Your task to perform on an android device: stop showing notifications on the lock screen Image 0: 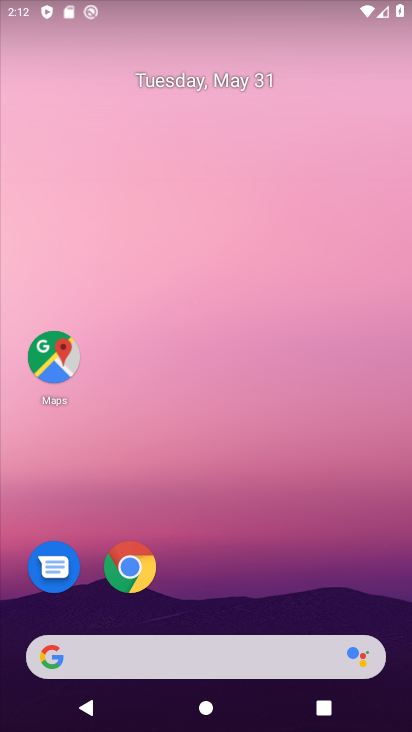
Step 0: drag from (214, 609) to (192, 154)
Your task to perform on an android device: stop showing notifications on the lock screen Image 1: 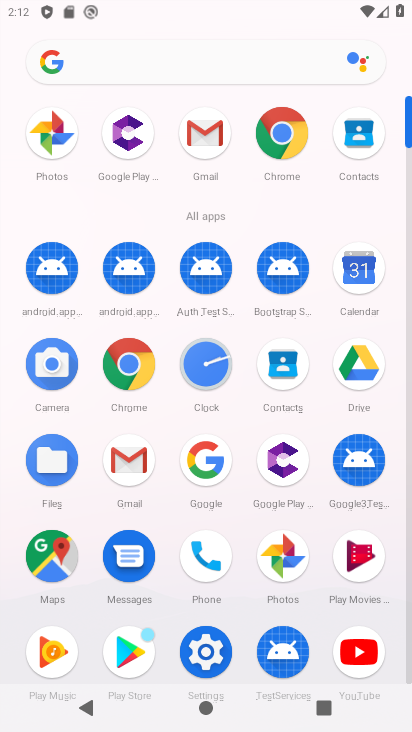
Step 1: click (205, 645)
Your task to perform on an android device: stop showing notifications on the lock screen Image 2: 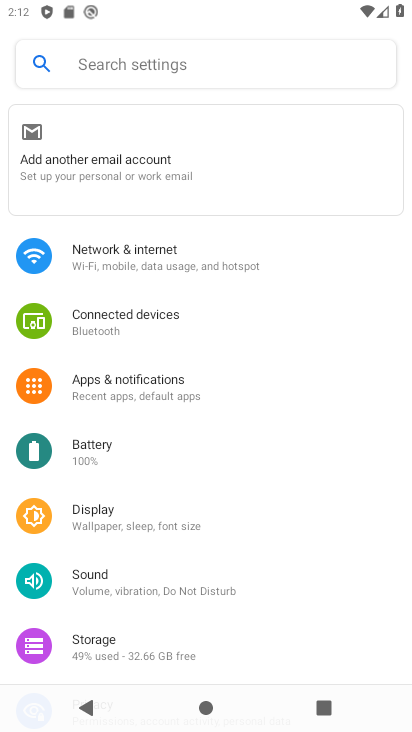
Step 2: click (196, 386)
Your task to perform on an android device: stop showing notifications on the lock screen Image 3: 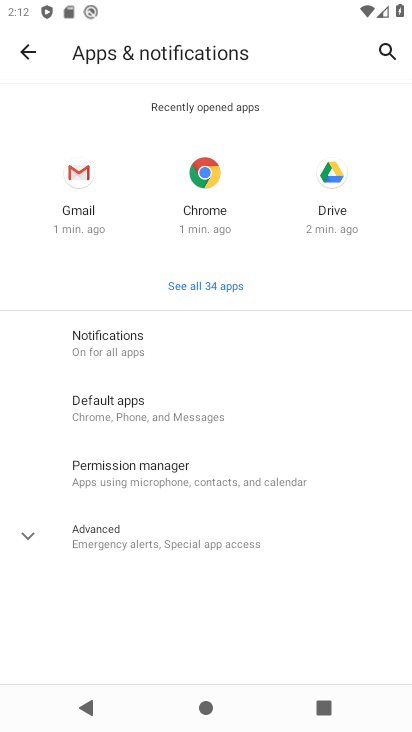
Step 3: click (162, 333)
Your task to perform on an android device: stop showing notifications on the lock screen Image 4: 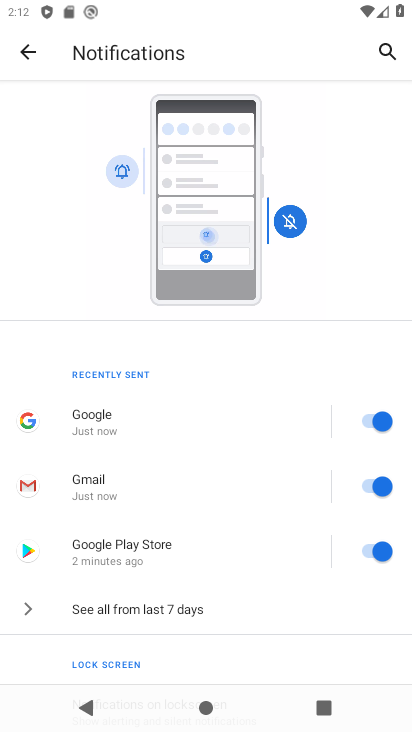
Step 4: drag from (210, 650) to (203, 195)
Your task to perform on an android device: stop showing notifications on the lock screen Image 5: 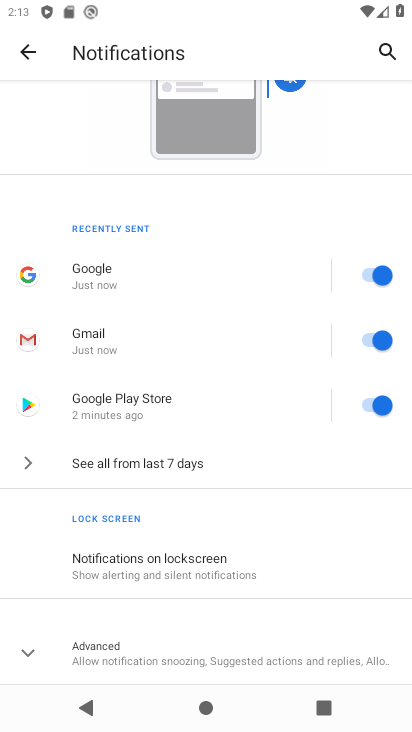
Step 5: click (210, 578)
Your task to perform on an android device: stop showing notifications on the lock screen Image 6: 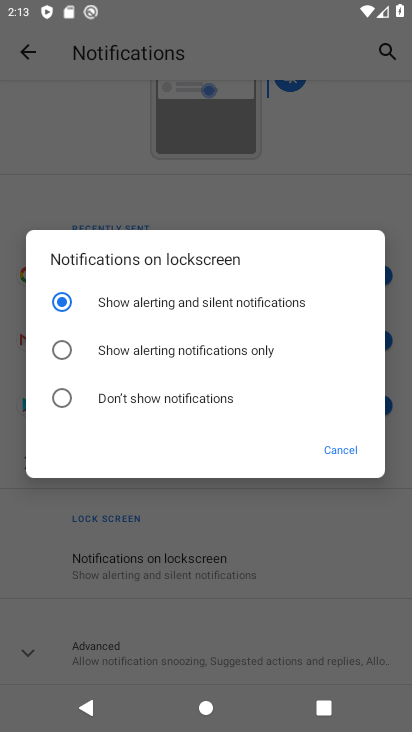
Step 6: click (227, 398)
Your task to perform on an android device: stop showing notifications on the lock screen Image 7: 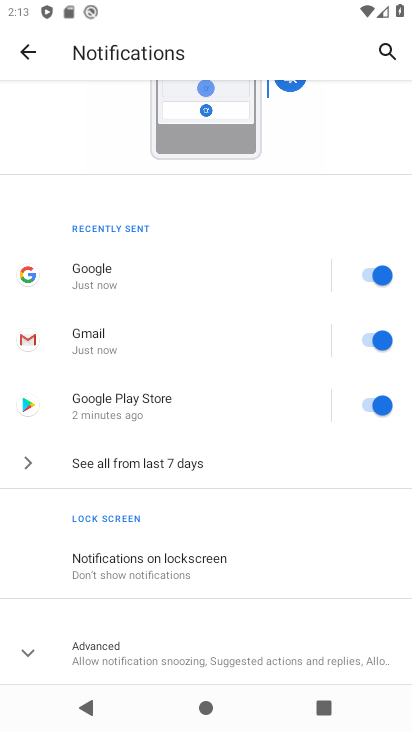
Step 7: task complete